Your task to perform on an android device: change keyboard looks Image 0: 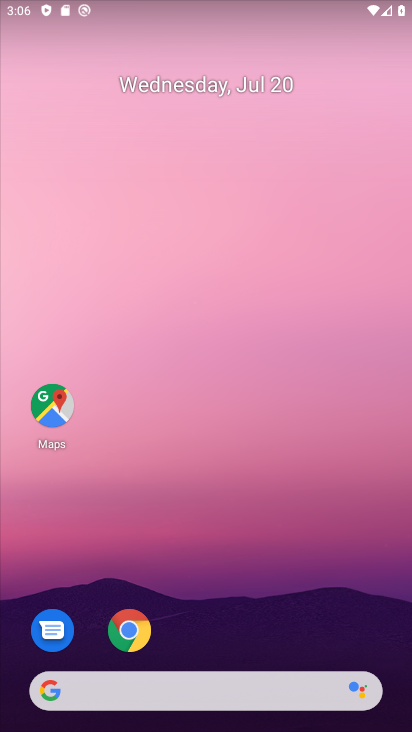
Step 0: drag from (299, 660) to (315, 34)
Your task to perform on an android device: change keyboard looks Image 1: 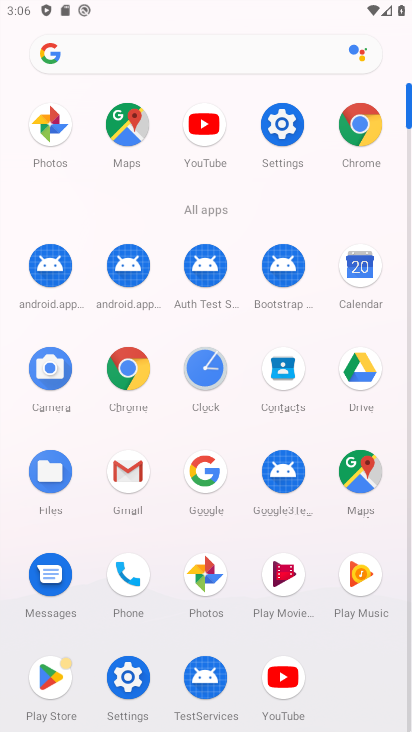
Step 1: click (288, 132)
Your task to perform on an android device: change keyboard looks Image 2: 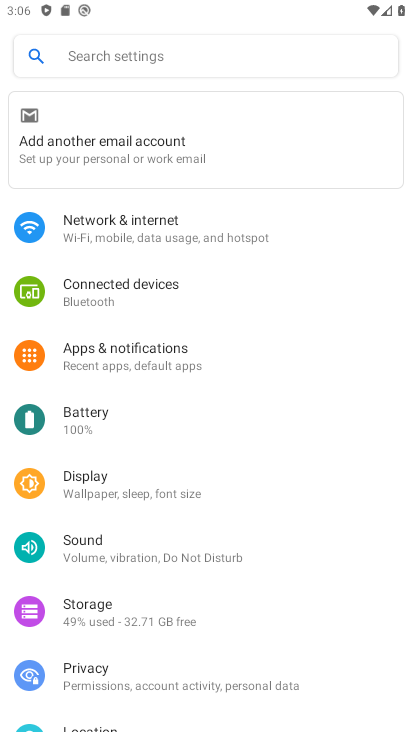
Step 2: drag from (245, 280) to (226, 18)
Your task to perform on an android device: change keyboard looks Image 3: 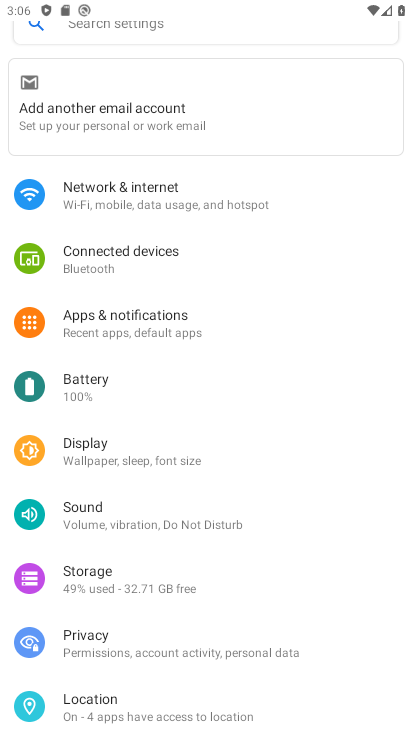
Step 3: drag from (219, 657) to (231, 4)
Your task to perform on an android device: change keyboard looks Image 4: 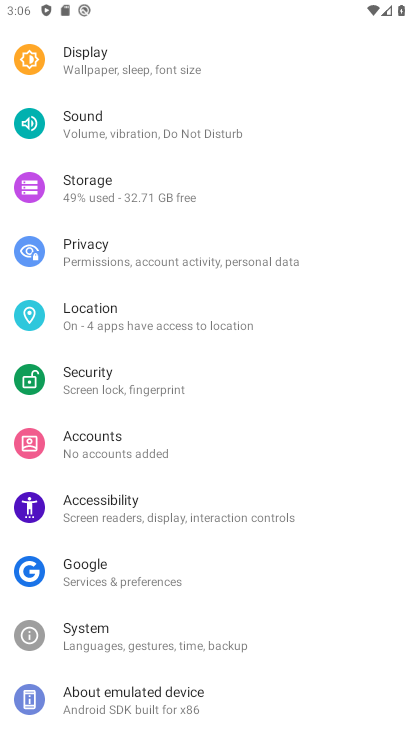
Step 4: click (79, 634)
Your task to perform on an android device: change keyboard looks Image 5: 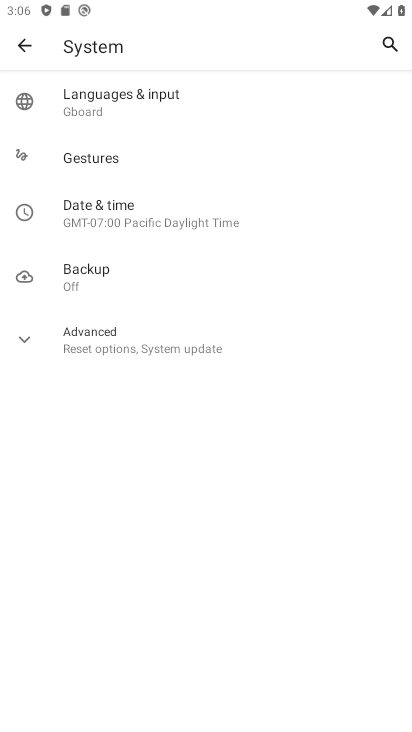
Step 5: click (130, 94)
Your task to perform on an android device: change keyboard looks Image 6: 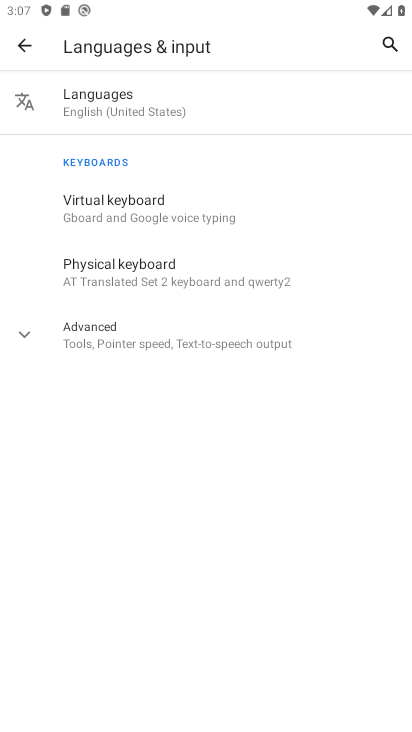
Step 6: click (130, 205)
Your task to perform on an android device: change keyboard looks Image 7: 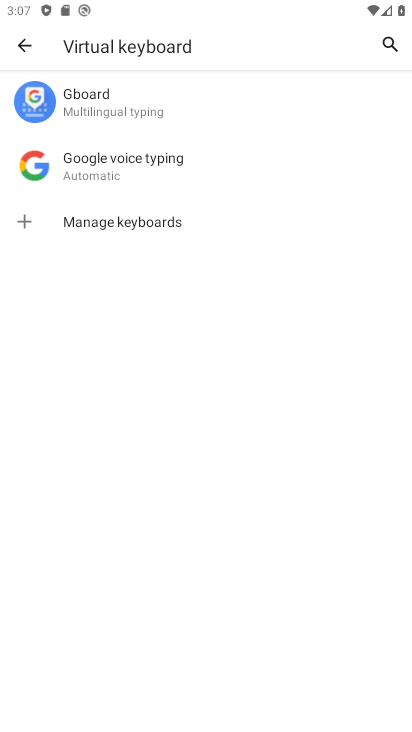
Step 7: click (83, 120)
Your task to perform on an android device: change keyboard looks Image 8: 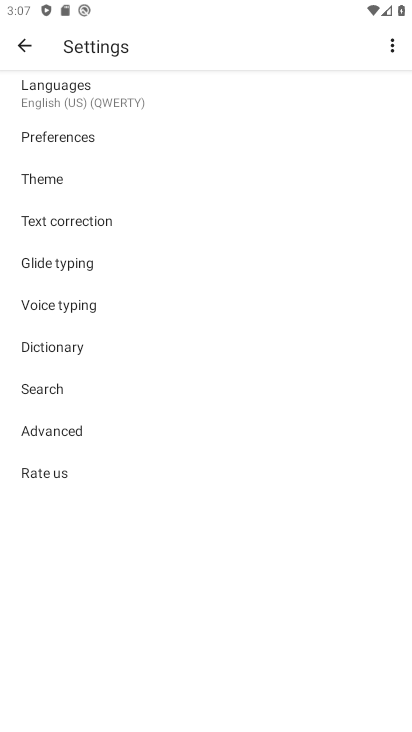
Step 8: click (46, 174)
Your task to perform on an android device: change keyboard looks Image 9: 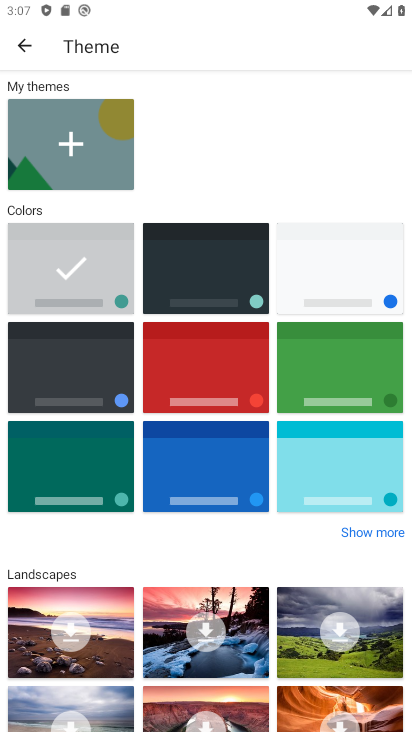
Step 9: click (186, 271)
Your task to perform on an android device: change keyboard looks Image 10: 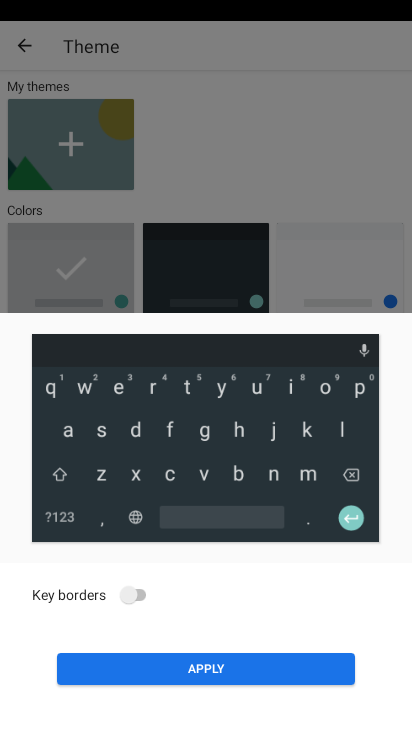
Step 10: click (113, 679)
Your task to perform on an android device: change keyboard looks Image 11: 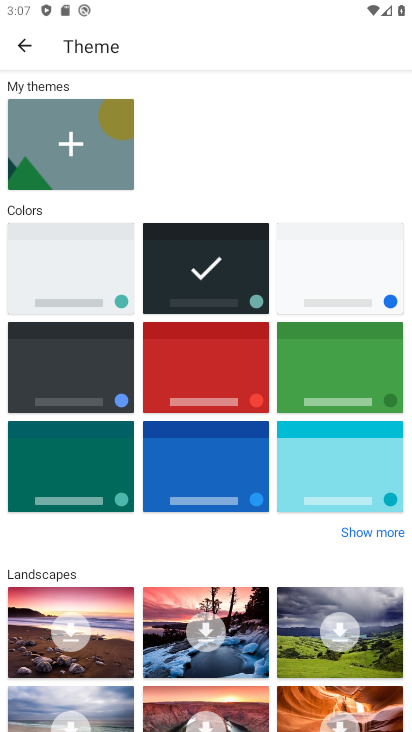
Step 11: task complete